Your task to perform on an android device: open app "Indeed Job Search" (install if not already installed), go to login, and select forgot password Image 0: 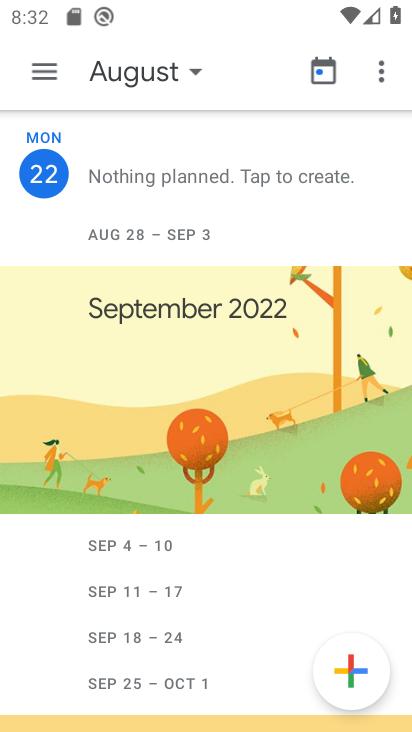
Step 0: press home button
Your task to perform on an android device: open app "Indeed Job Search" (install if not already installed), go to login, and select forgot password Image 1: 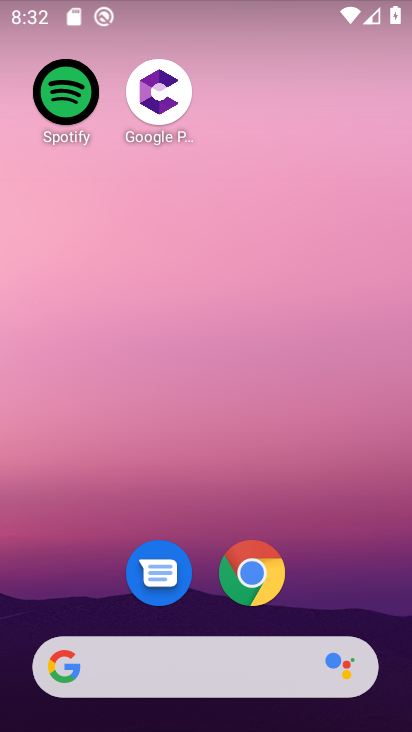
Step 1: drag from (201, 604) to (230, 190)
Your task to perform on an android device: open app "Indeed Job Search" (install if not already installed), go to login, and select forgot password Image 2: 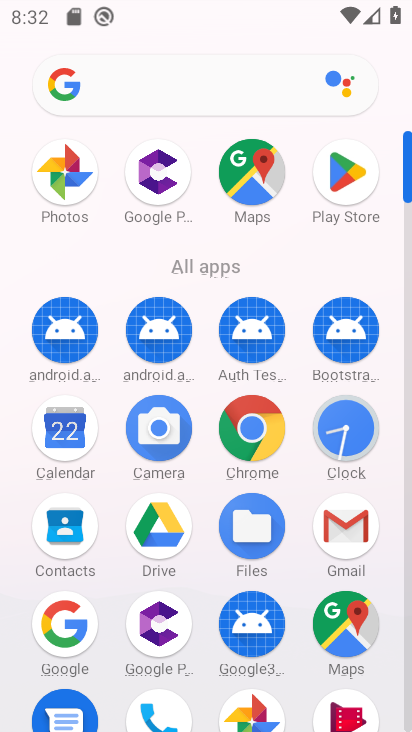
Step 2: click (366, 190)
Your task to perform on an android device: open app "Indeed Job Search" (install if not already installed), go to login, and select forgot password Image 3: 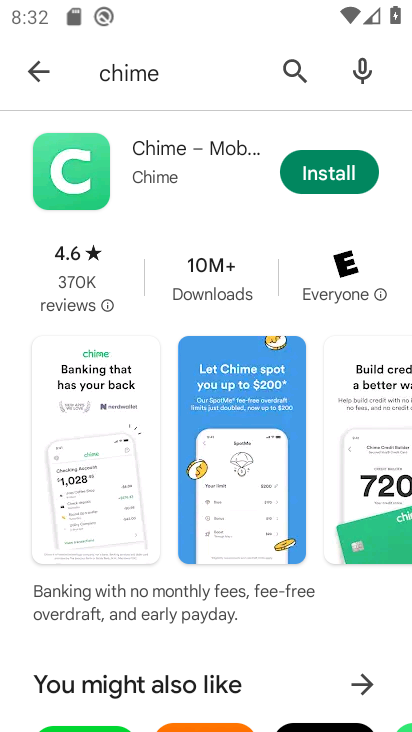
Step 3: click (190, 72)
Your task to perform on an android device: open app "Indeed Job Search" (install if not already installed), go to login, and select forgot password Image 4: 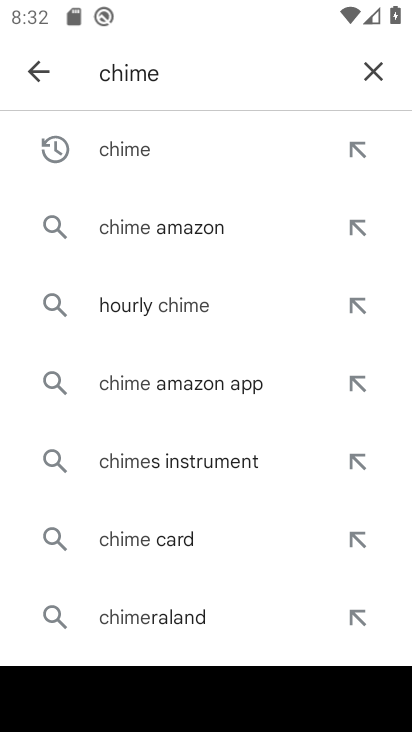
Step 4: click (369, 67)
Your task to perform on an android device: open app "Indeed Job Search" (install if not already installed), go to login, and select forgot password Image 5: 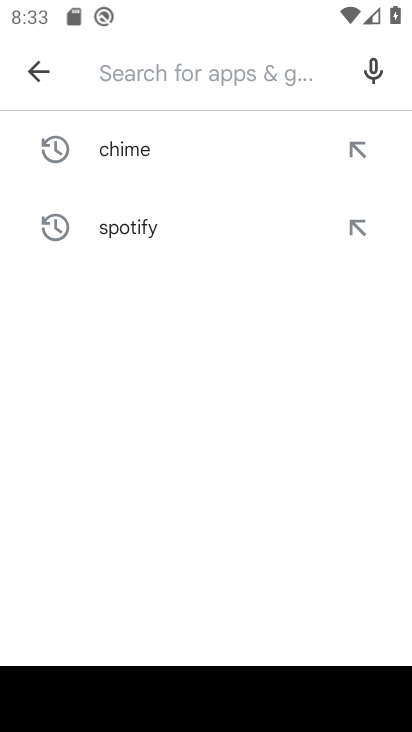
Step 5: type "Indeed"
Your task to perform on an android device: open app "Indeed Job Search" (install if not already installed), go to login, and select forgot password Image 6: 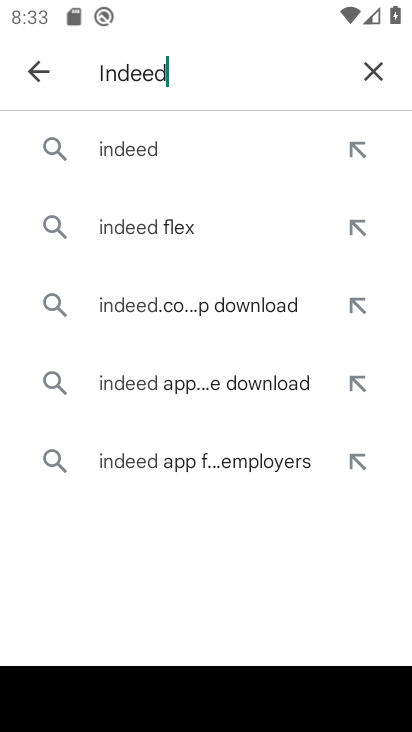
Step 6: click (125, 141)
Your task to perform on an android device: open app "Indeed Job Search" (install if not already installed), go to login, and select forgot password Image 7: 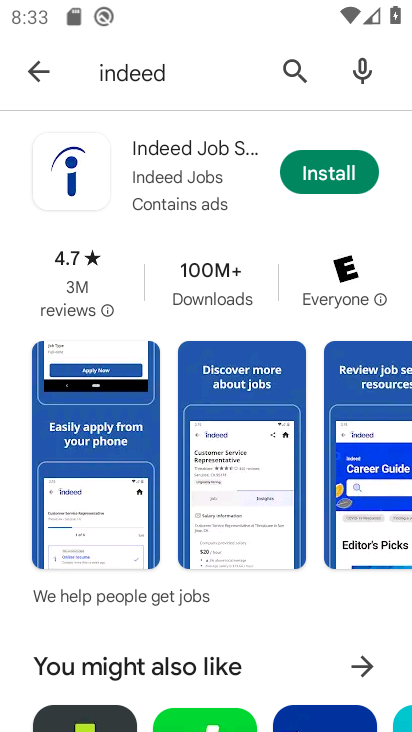
Step 7: click (337, 172)
Your task to perform on an android device: open app "Indeed Job Search" (install if not already installed), go to login, and select forgot password Image 8: 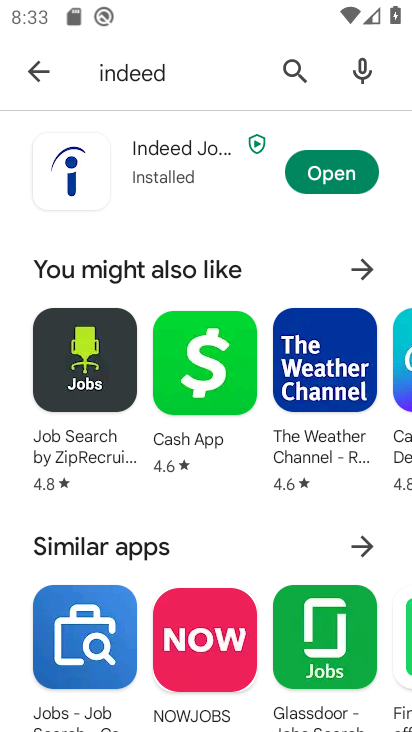
Step 8: click (334, 165)
Your task to perform on an android device: open app "Indeed Job Search" (install if not already installed), go to login, and select forgot password Image 9: 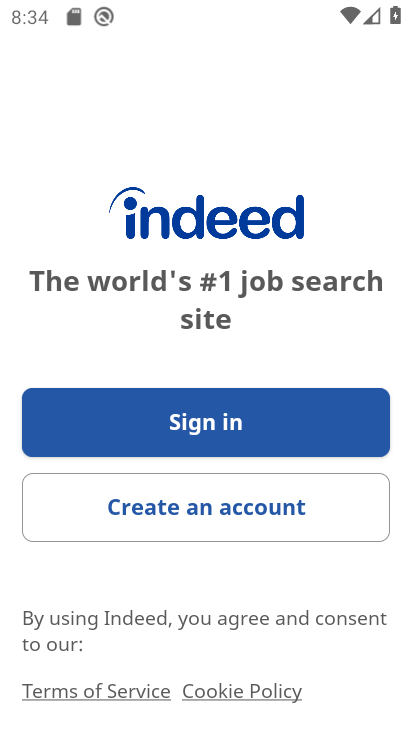
Step 9: click (210, 441)
Your task to perform on an android device: open app "Indeed Job Search" (install if not already installed), go to login, and select forgot password Image 10: 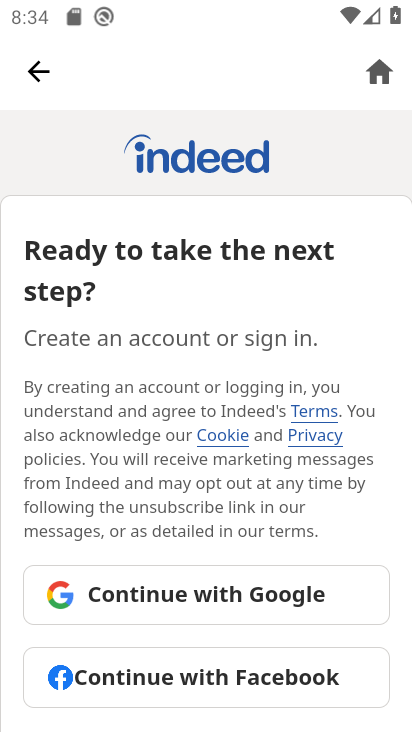
Step 10: drag from (221, 635) to (216, 453)
Your task to perform on an android device: open app "Indeed Job Search" (install if not already installed), go to login, and select forgot password Image 11: 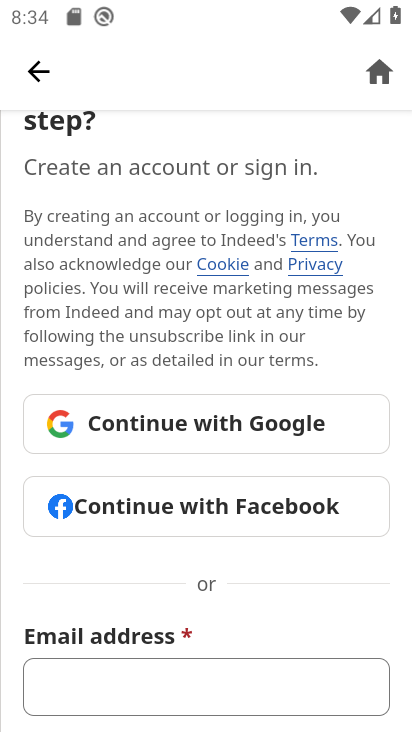
Step 11: drag from (198, 613) to (216, 386)
Your task to perform on an android device: open app "Indeed Job Search" (install if not already installed), go to login, and select forgot password Image 12: 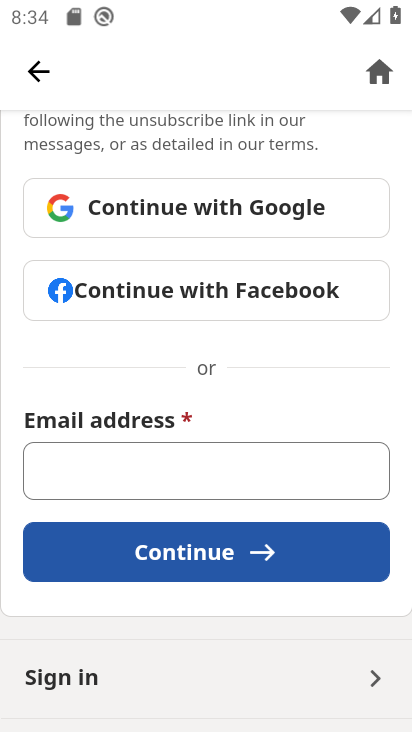
Step 12: click (66, 674)
Your task to perform on an android device: open app "Indeed Job Search" (install if not already installed), go to login, and select forgot password Image 13: 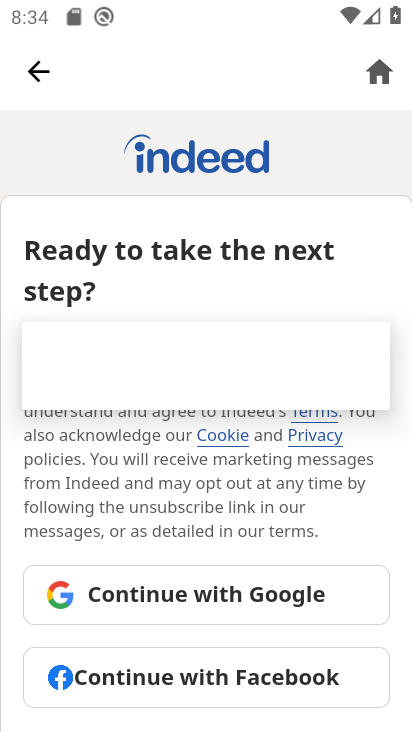
Step 13: drag from (202, 652) to (207, 370)
Your task to perform on an android device: open app "Indeed Job Search" (install if not already installed), go to login, and select forgot password Image 14: 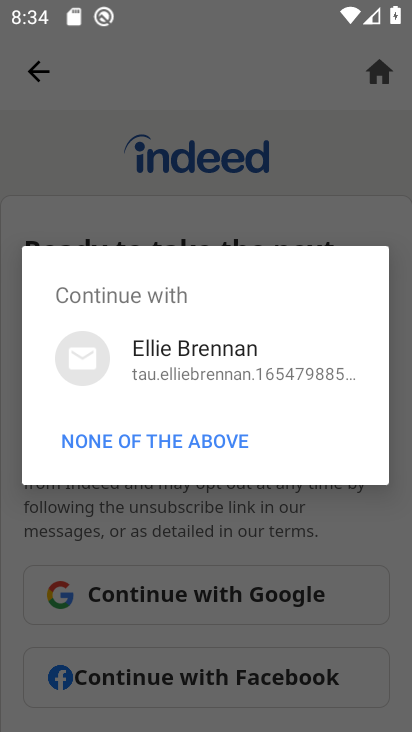
Step 14: click (212, 358)
Your task to perform on an android device: open app "Indeed Job Search" (install if not already installed), go to login, and select forgot password Image 15: 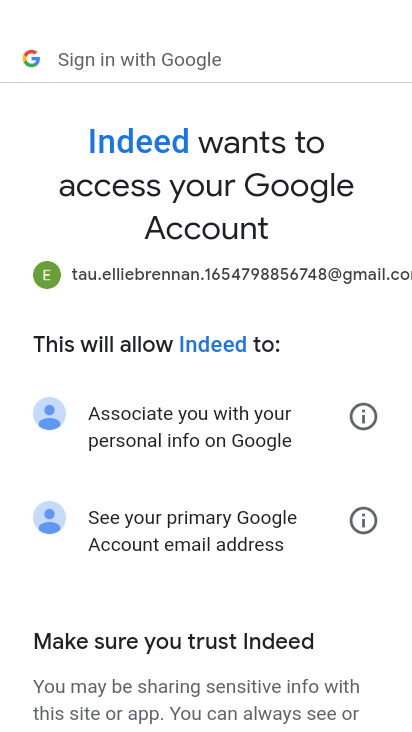
Step 15: drag from (209, 577) to (215, 303)
Your task to perform on an android device: open app "Indeed Job Search" (install if not already installed), go to login, and select forgot password Image 16: 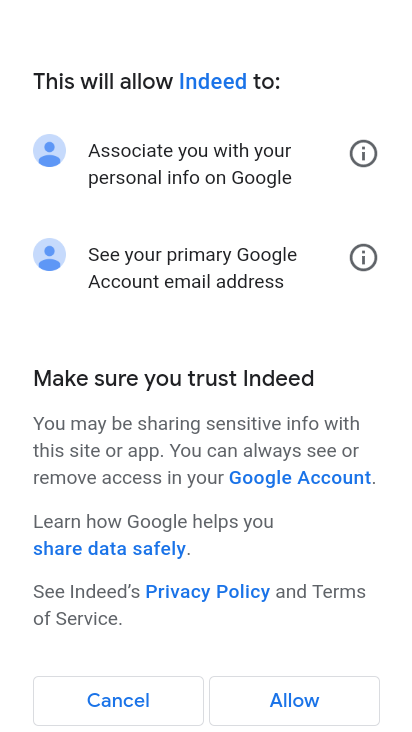
Step 16: drag from (210, 633) to (215, 469)
Your task to perform on an android device: open app "Indeed Job Search" (install if not already installed), go to login, and select forgot password Image 17: 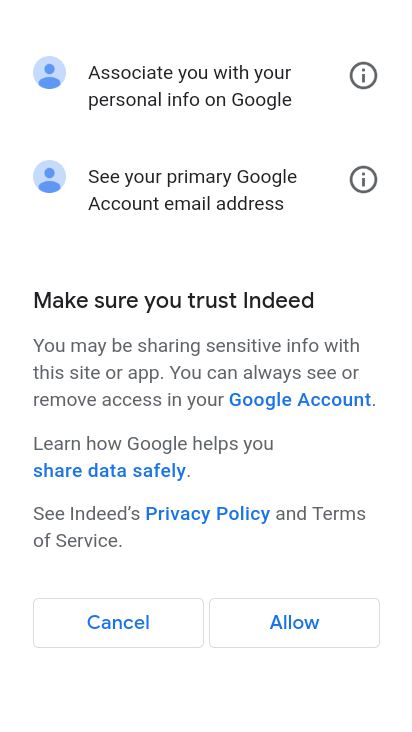
Step 17: click (292, 622)
Your task to perform on an android device: open app "Indeed Job Search" (install if not already installed), go to login, and select forgot password Image 18: 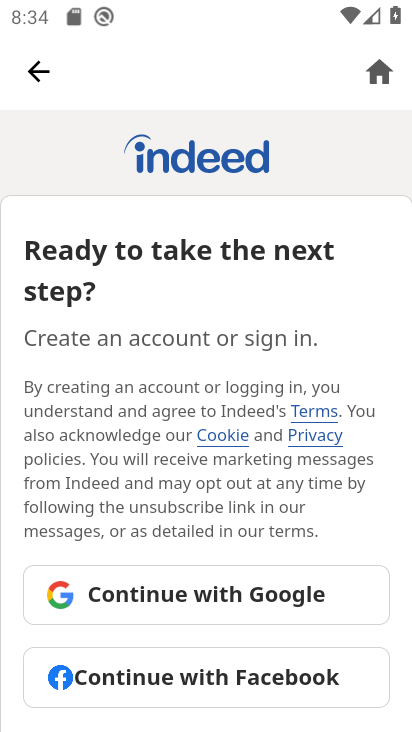
Step 18: task complete